Your task to perform on an android device: Is it going to rain today? Image 0: 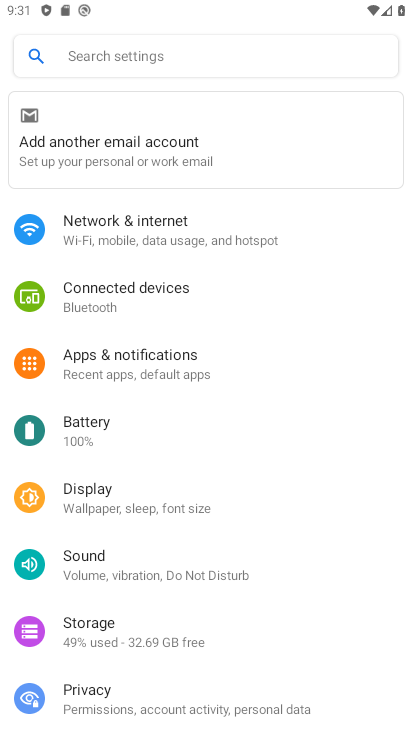
Step 0: press home button
Your task to perform on an android device: Is it going to rain today? Image 1: 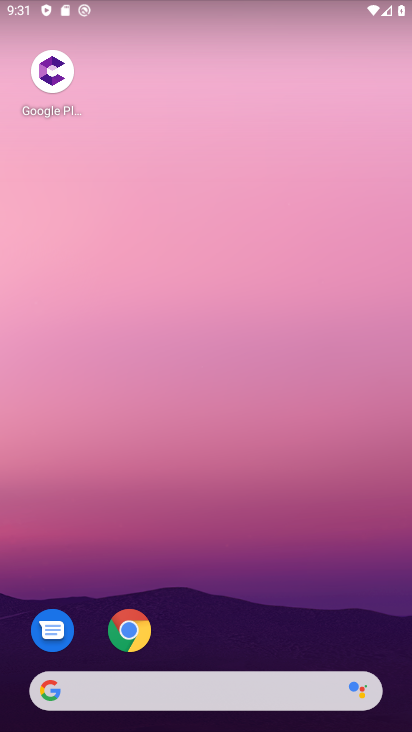
Step 1: click (180, 698)
Your task to perform on an android device: Is it going to rain today? Image 2: 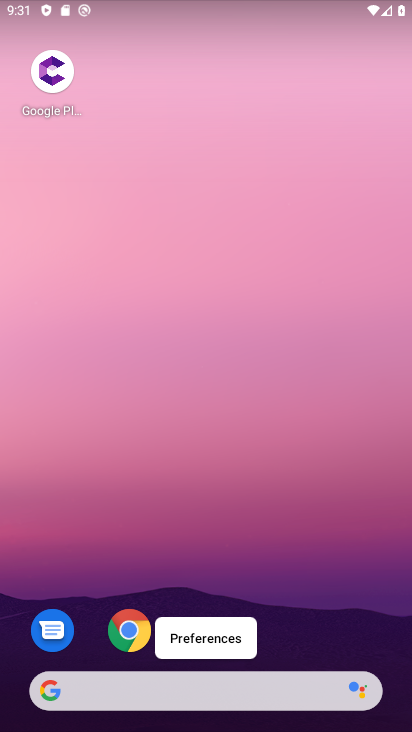
Step 2: click (181, 700)
Your task to perform on an android device: Is it going to rain today? Image 3: 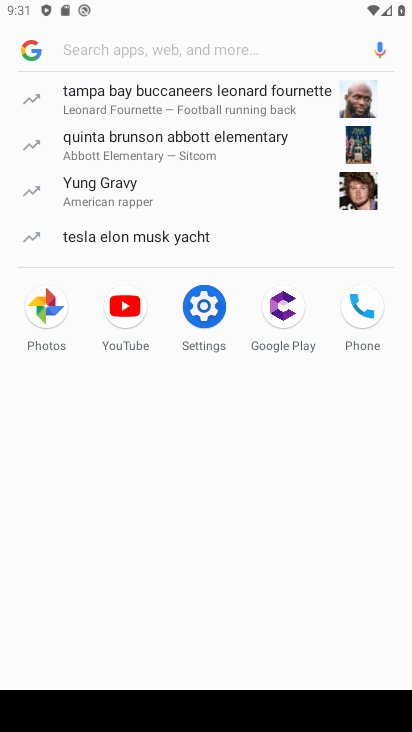
Step 3: click (136, 40)
Your task to perform on an android device: Is it going to rain today? Image 4: 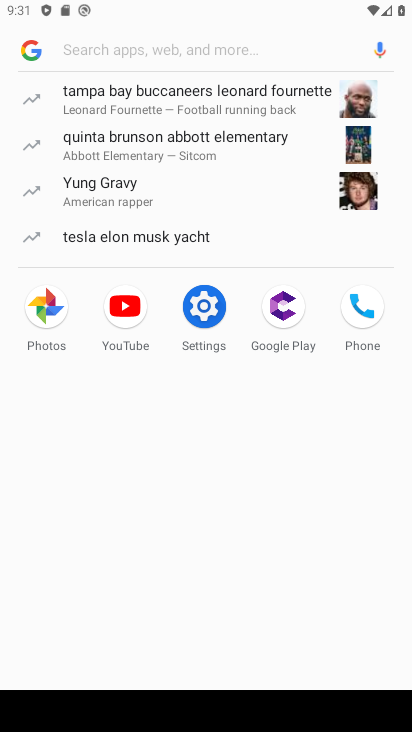
Step 4: type "weather"
Your task to perform on an android device: Is it going to rain today? Image 5: 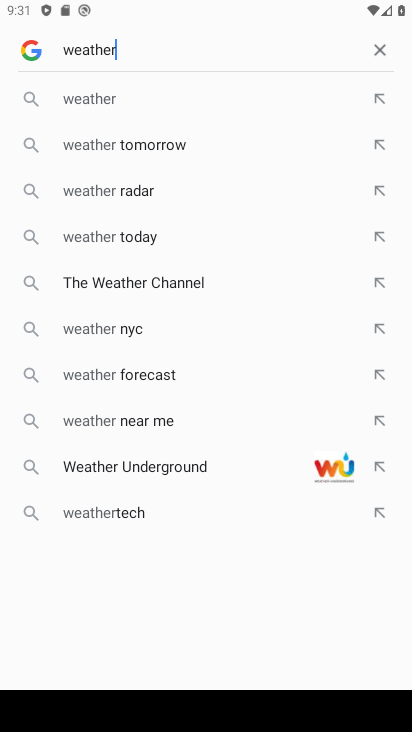
Step 5: click (119, 108)
Your task to perform on an android device: Is it going to rain today? Image 6: 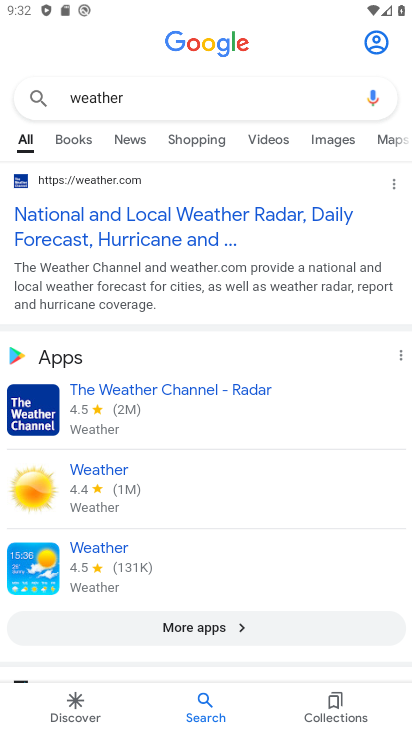
Step 6: click (152, 235)
Your task to perform on an android device: Is it going to rain today? Image 7: 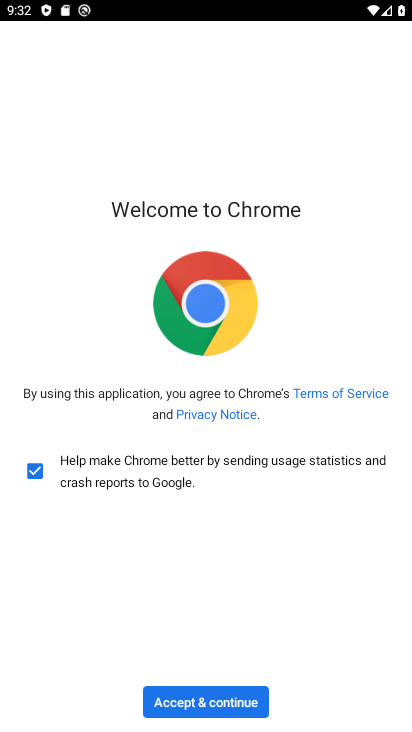
Step 7: click (196, 713)
Your task to perform on an android device: Is it going to rain today? Image 8: 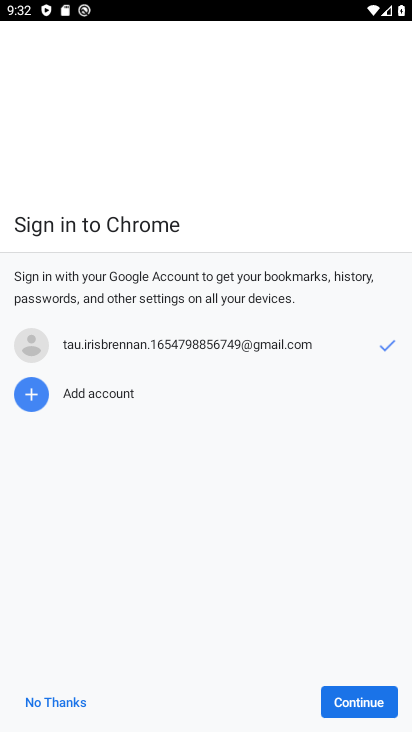
Step 8: click (30, 696)
Your task to perform on an android device: Is it going to rain today? Image 9: 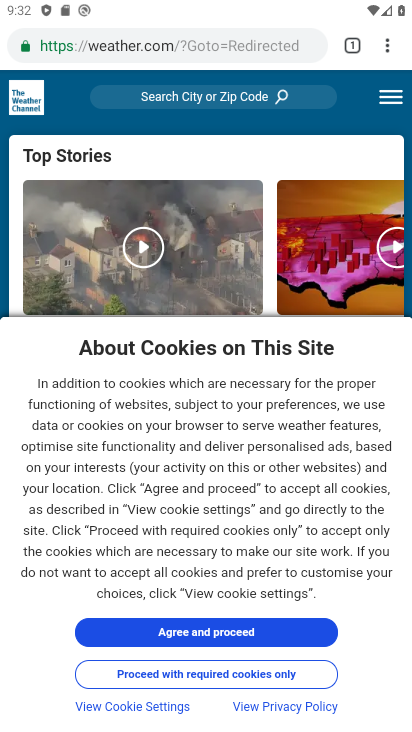
Step 9: task complete